Your task to perform on an android device: Open internet settings Image 0: 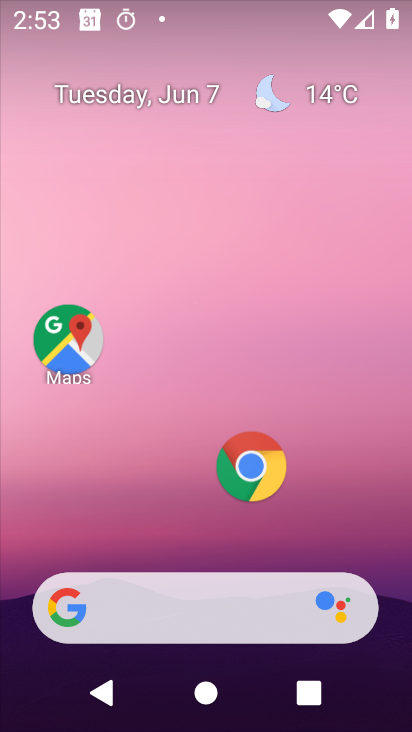
Step 0: drag from (157, 686) to (177, 156)
Your task to perform on an android device: Open internet settings Image 1: 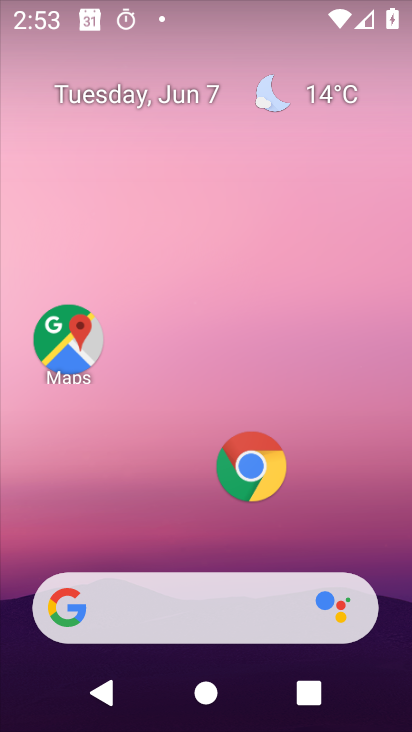
Step 1: drag from (158, 727) to (176, 16)
Your task to perform on an android device: Open internet settings Image 2: 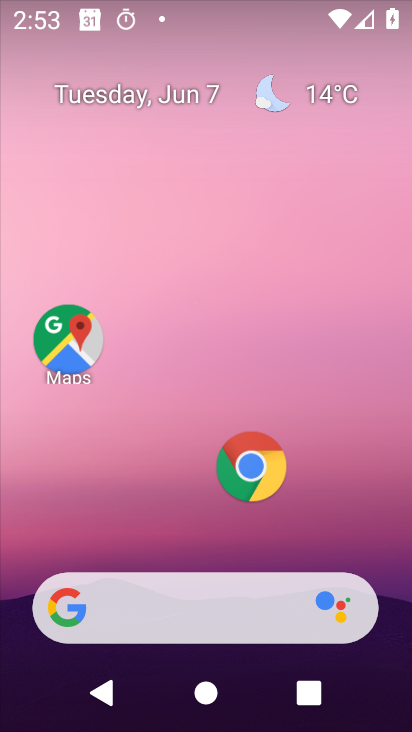
Step 2: drag from (169, 720) to (385, 4)
Your task to perform on an android device: Open internet settings Image 3: 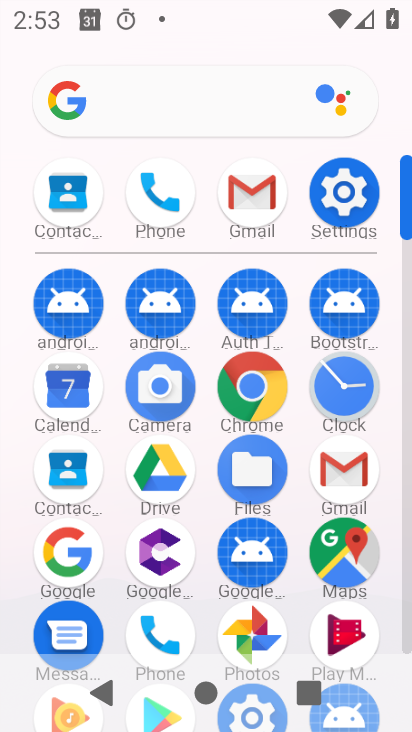
Step 3: click (355, 208)
Your task to perform on an android device: Open internet settings Image 4: 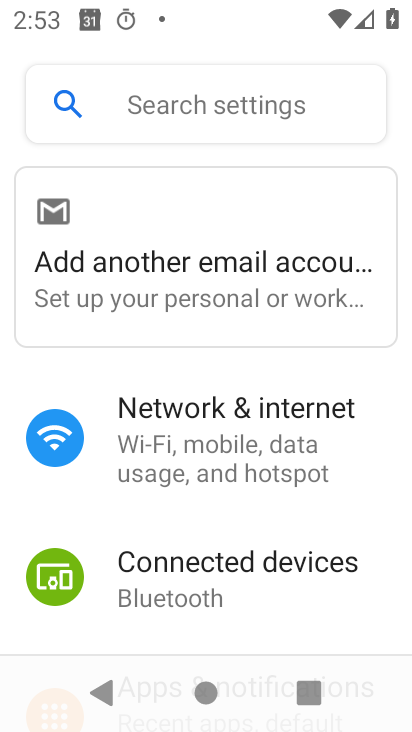
Step 4: click (228, 466)
Your task to perform on an android device: Open internet settings Image 5: 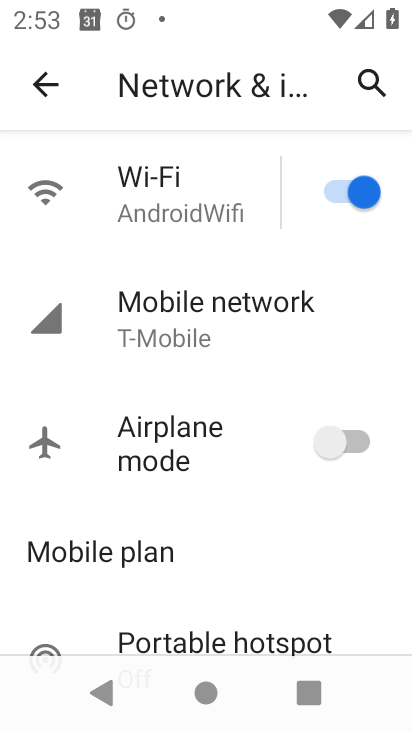
Step 5: drag from (252, 568) to (247, 272)
Your task to perform on an android device: Open internet settings Image 6: 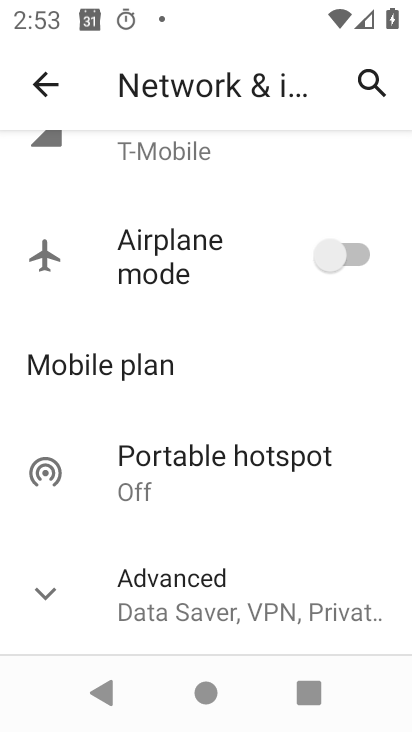
Step 6: drag from (234, 243) to (189, 518)
Your task to perform on an android device: Open internet settings Image 7: 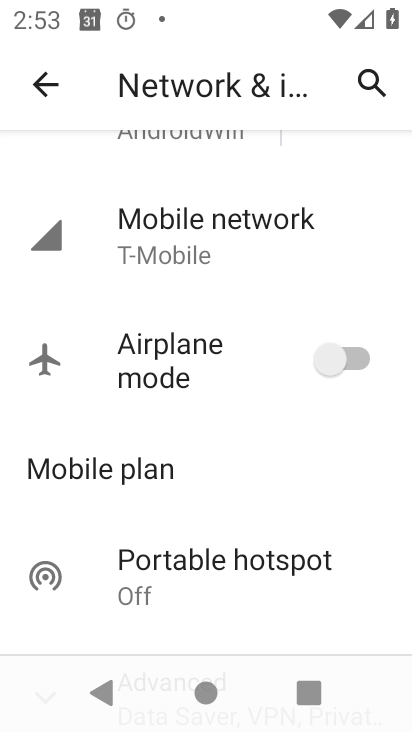
Step 7: click (209, 265)
Your task to perform on an android device: Open internet settings Image 8: 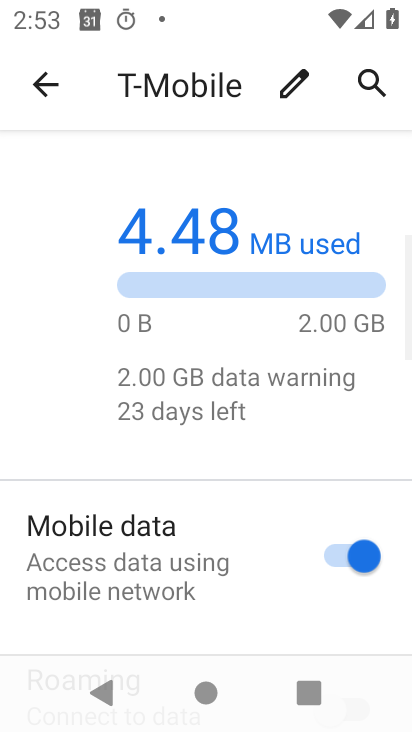
Step 8: task complete